Your task to perform on an android device: Open location settings Image 0: 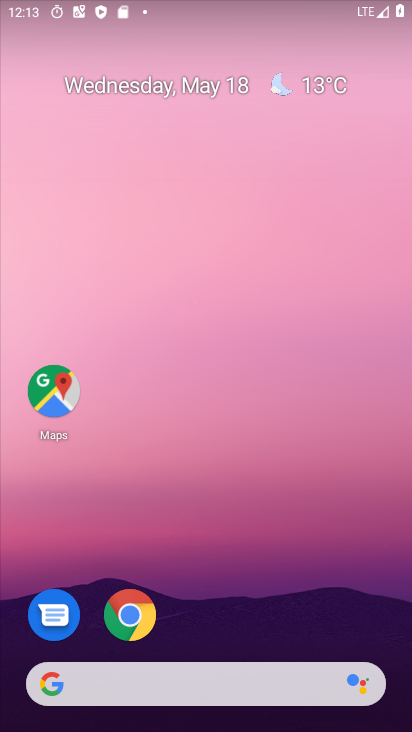
Step 0: press home button
Your task to perform on an android device: Open location settings Image 1: 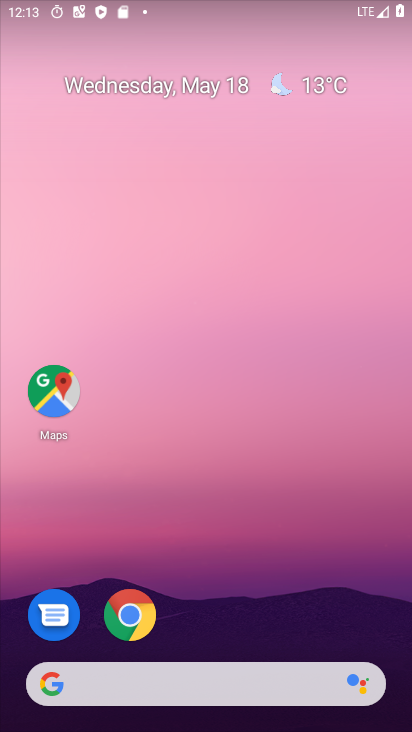
Step 1: drag from (152, 686) to (252, 239)
Your task to perform on an android device: Open location settings Image 2: 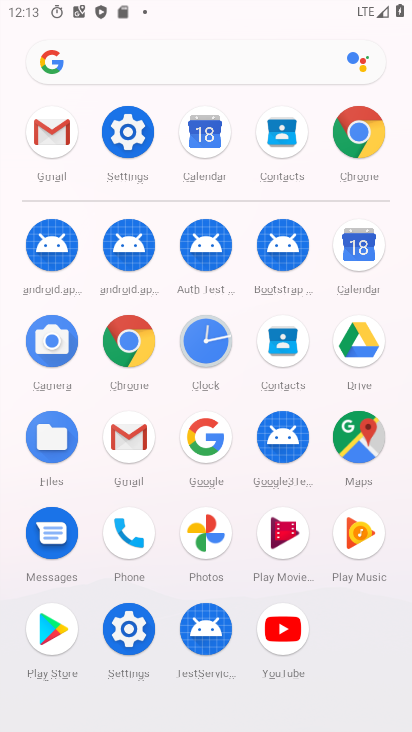
Step 2: click (144, 129)
Your task to perform on an android device: Open location settings Image 3: 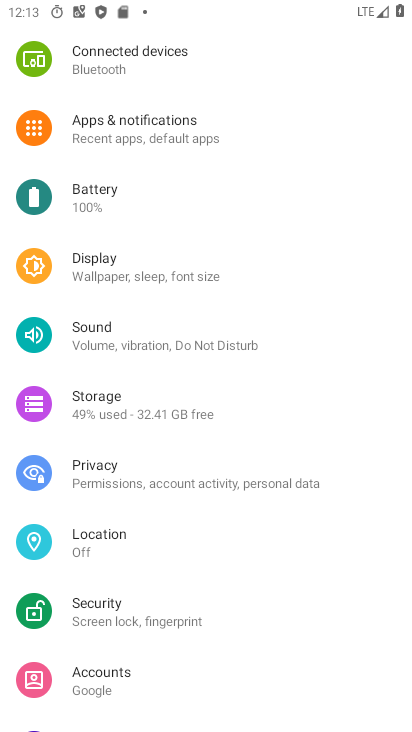
Step 3: drag from (225, 562) to (335, 134)
Your task to perform on an android device: Open location settings Image 4: 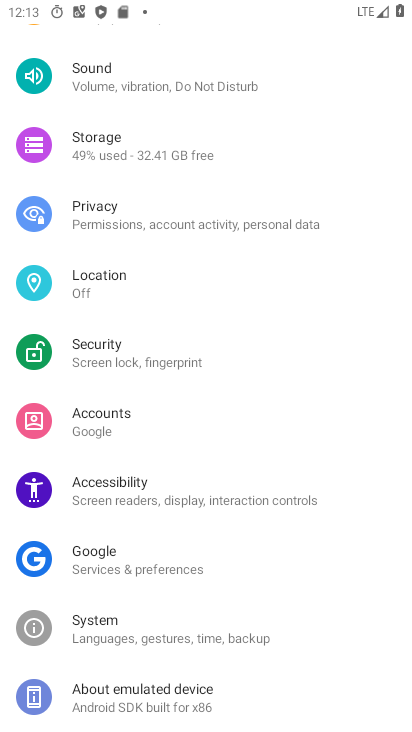
Step 4: drag from (284, 151) to (309, 301)
Your task to perform on an android device: Open location settings Image 5: 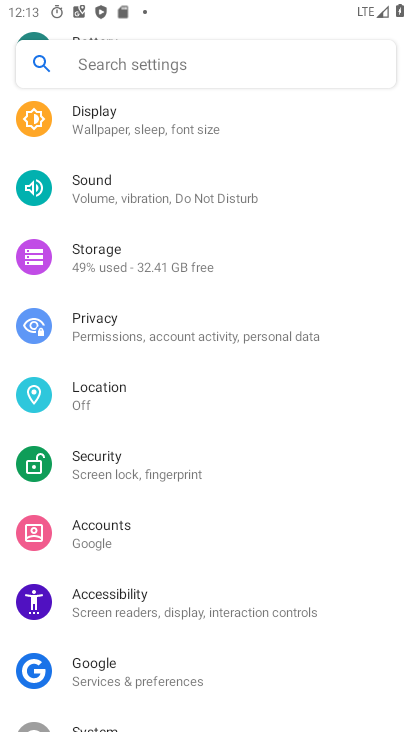
Step 5: click (99, 394)
Your task to perform on an android device: Open location settings Image 6: 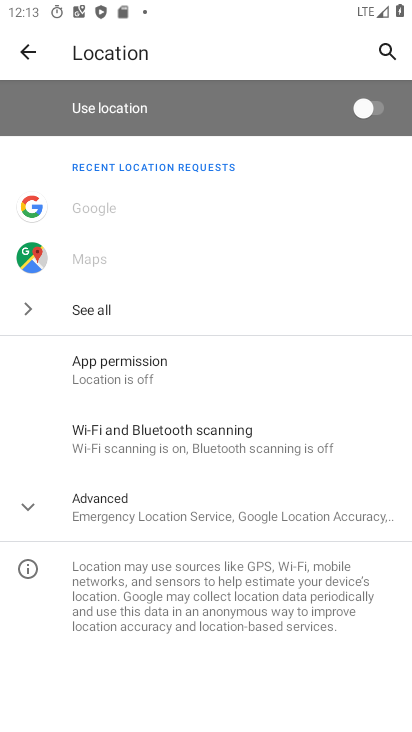
Step 6: task complete